Your task to perform on an android device: change the clock style Image 0: 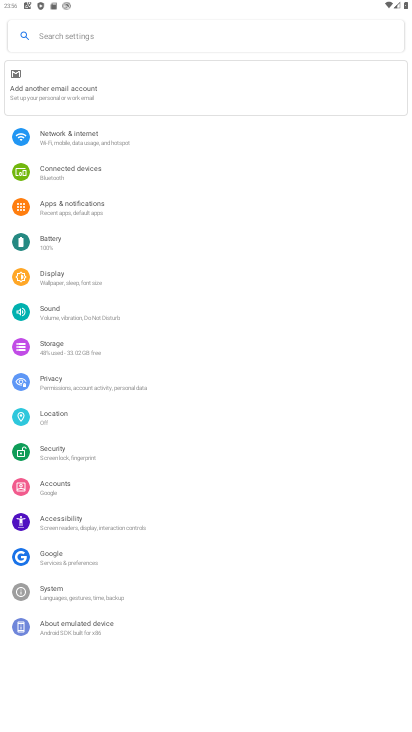
Step 0: press home button
Your task to perform on an android device: change the clock style Image 1: 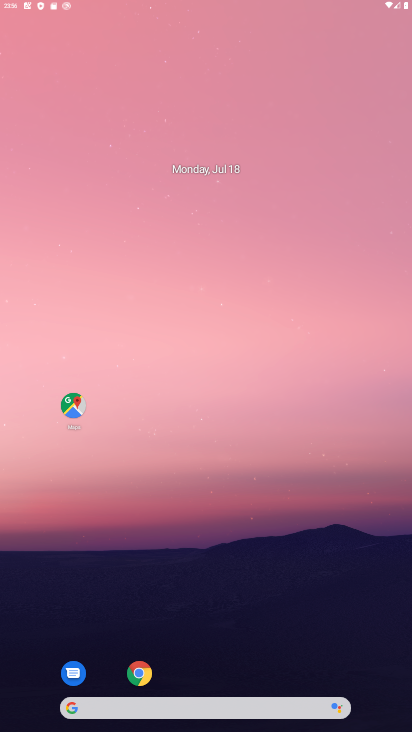
Step 1: drag from (238, 595) to (227, 263)
Your task to perform on an android device: change the clock style Image 2: 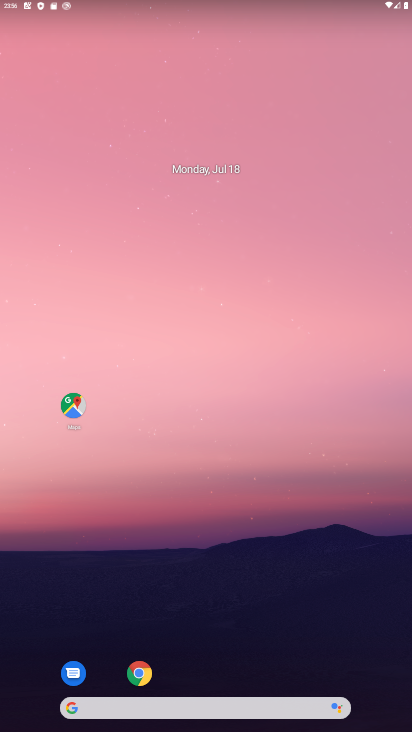
Step 2: drag from (188, 695) to (188, 256)
Your task to perform on an android device: change the clock style Image 3: 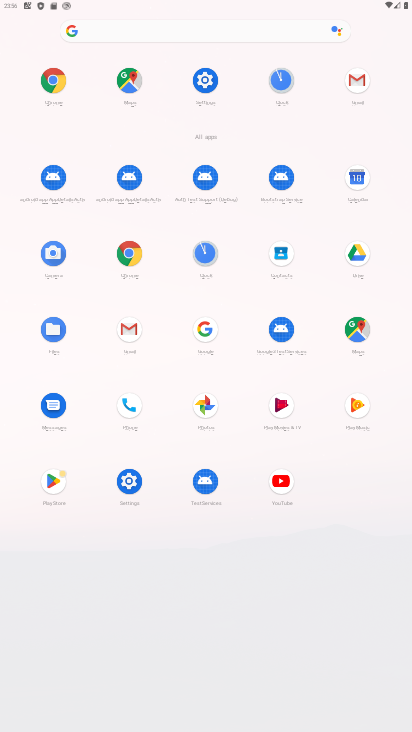
Step 3: click (361, 176)
Your task to perform on an android device: change the clock style Image 4: 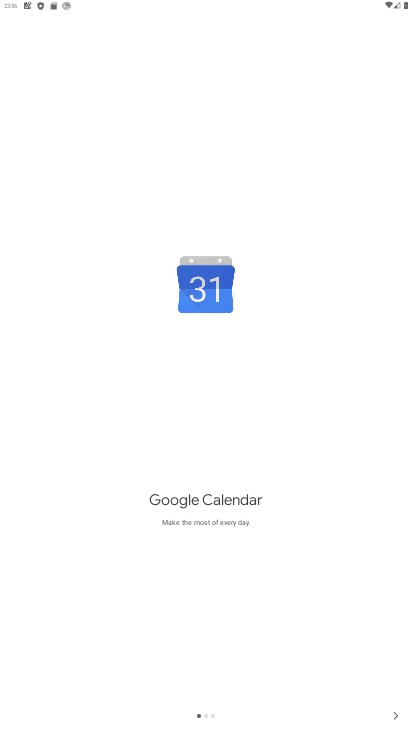
Step 4: click (386, 715)
Your task to perform on an android device: change the clock style Image 5: 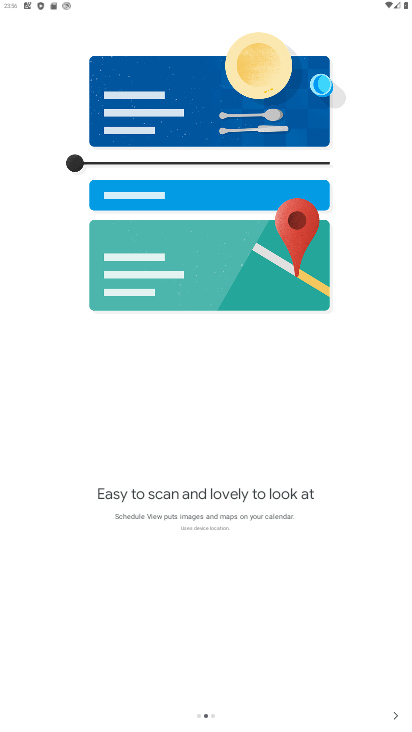
Step 5: click (386, 715)
Your task to perform on an android device: change the clock style Image 6: 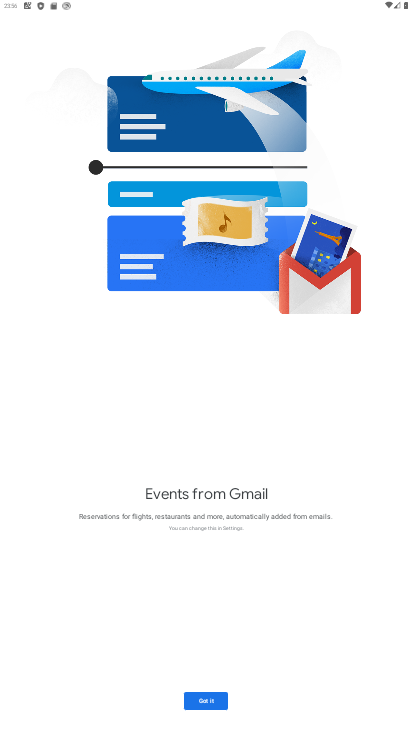
Step 6: click (198, 700)
Your task to perform on an android device: change the clock style Image 7: 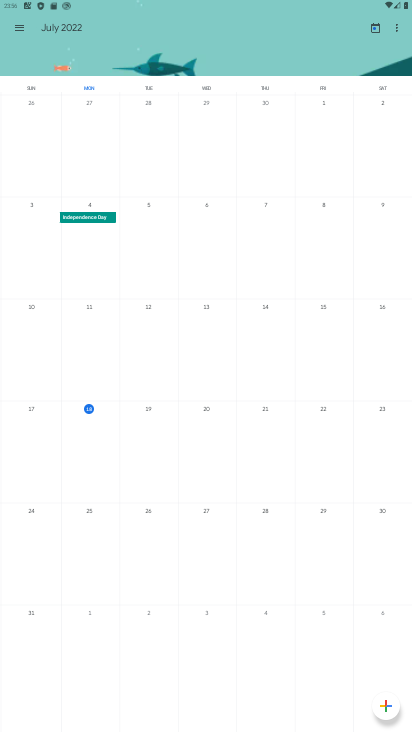
Step 7: press home button
Your task to perform on an android device: change the clock style Image 8: 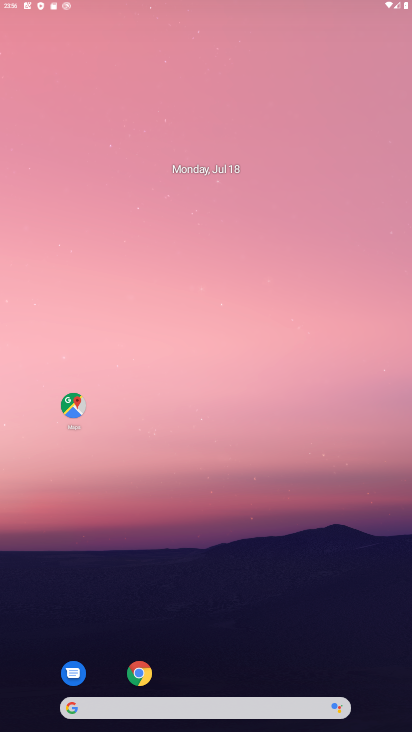
Step 8: drag from (157, 641) to (187, 227)
Your task to perform on an android device: change the clock style Image 9: 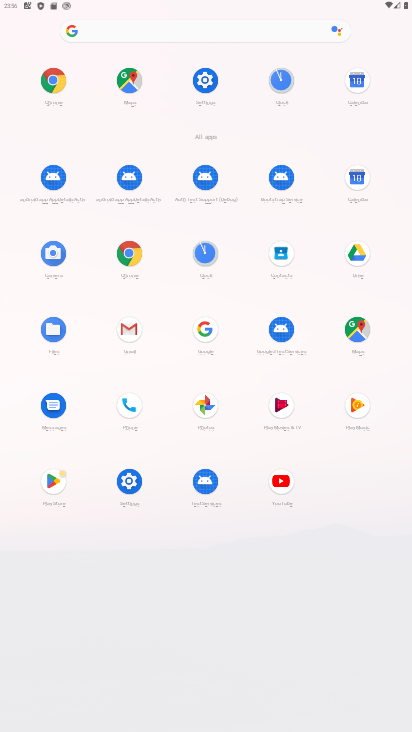
Step 9: click (199, 260)
Your task to perform on an android device: change the clock style Image 10: 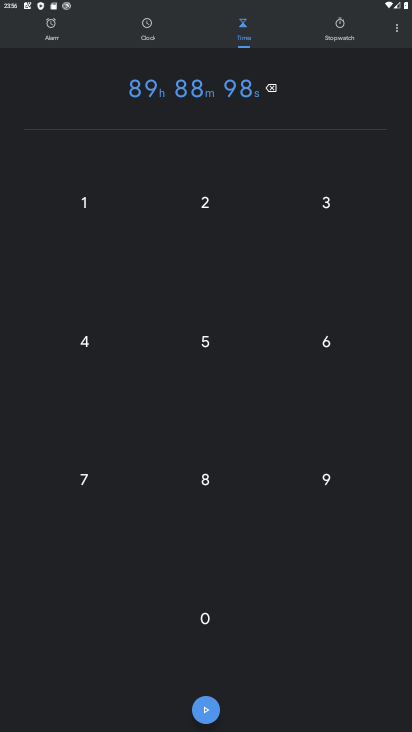
Step 10: click (400, 25)
Your task to perform on an android device: change the clock style Image 11: 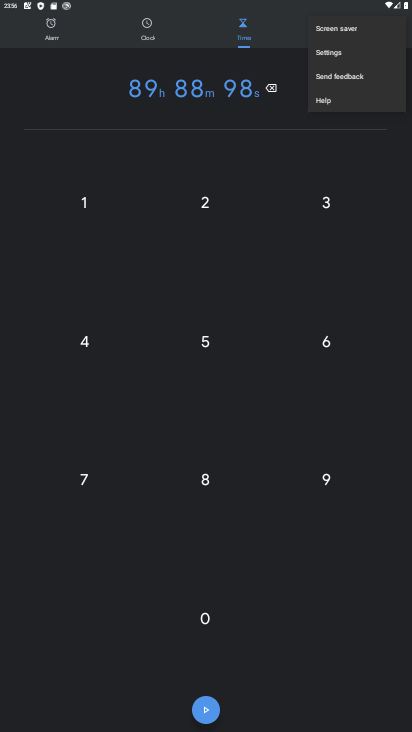
Step 11: click (347, 59)
Your task to perform on an android device: change the clock style Image 12: 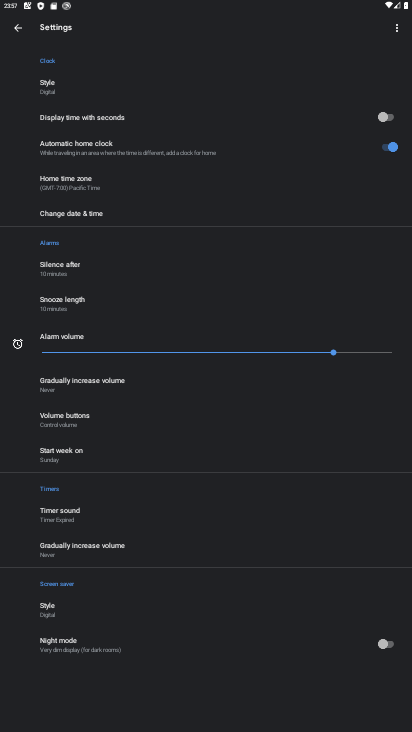
Step 12: click (54, 90)
Your task to perform on an android device: change the clock style Image 13: 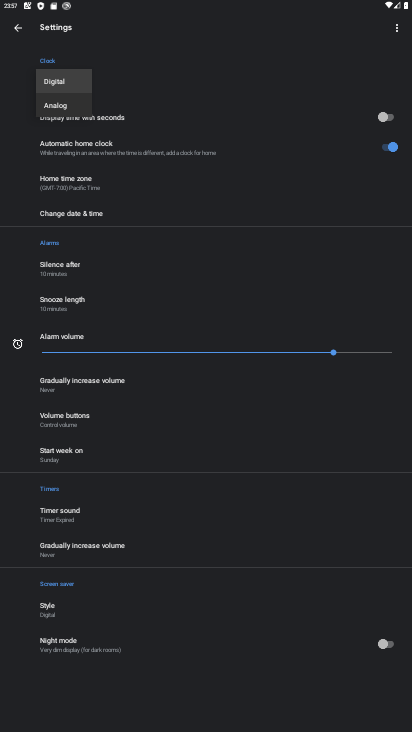
Step 13: click (64, 106)
Your task to perform on an android device: change the clock style Image 14: 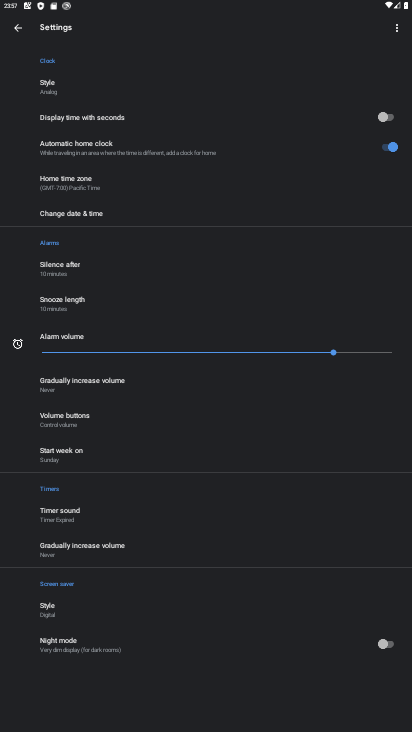
Step 14: task complete